Your task to perform on an android device: Open maps Image 0: 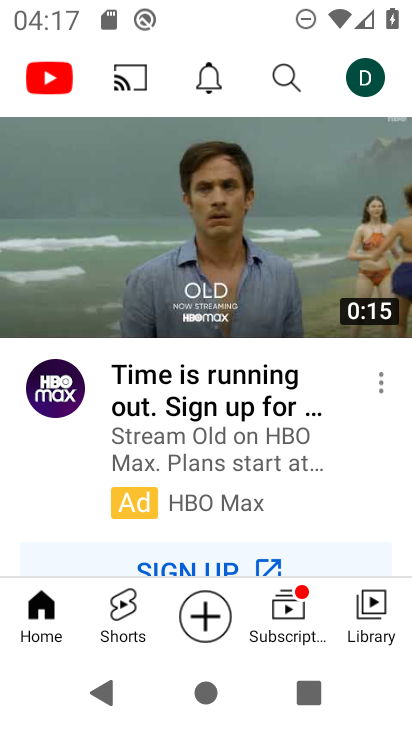
Step 0: press home button
Your task to perform on an android device: Open maps Image 1: 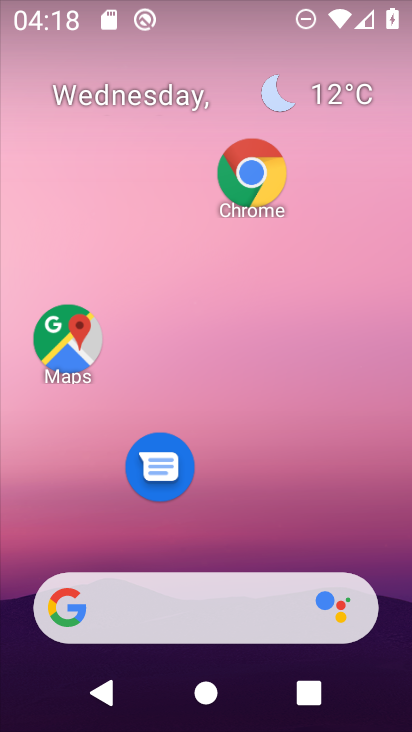
Step 1: click (88, 331)
Your task to perform on an android device: Open maps Image 2: 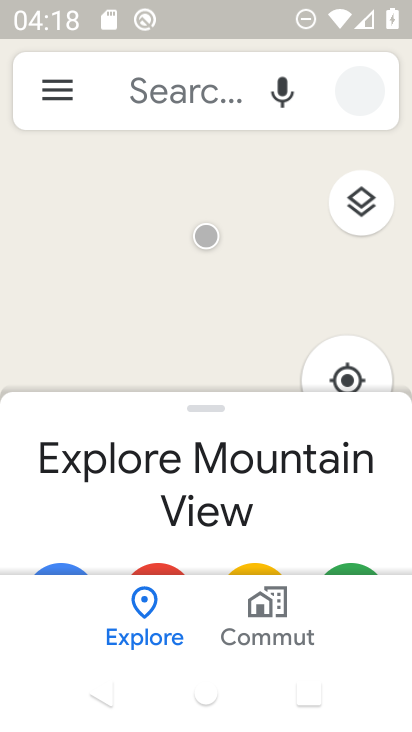
Step 2: task complete